Your task to perform on an android device: turn smart compose on in the gmail app Image 0: 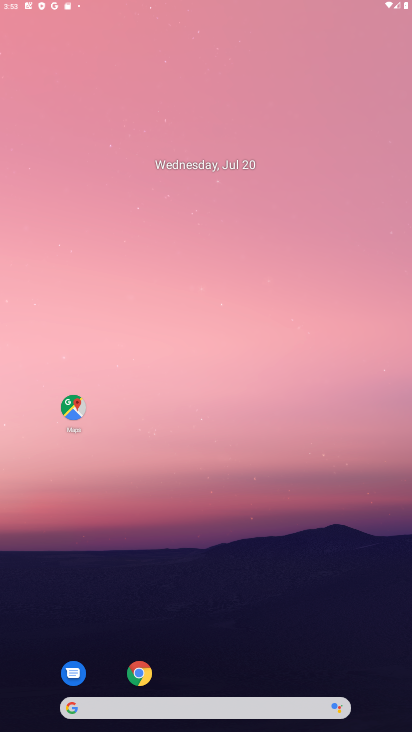
Step 0: press home button
Your task to perform on an android device: turn smart compose on in the gmail app Image 1: 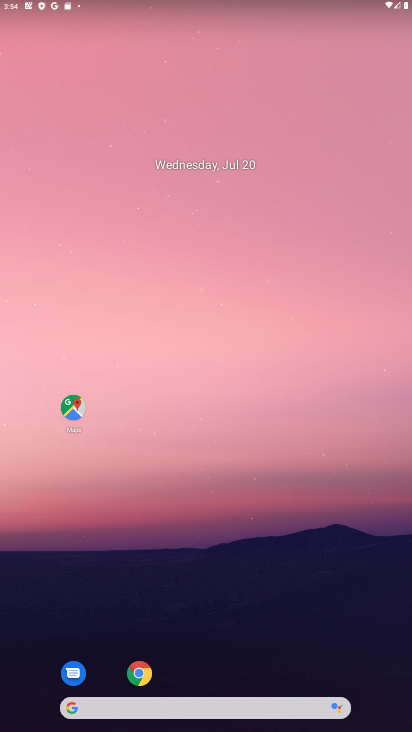
Step 1: drag from (269, 658) to (268, 12)
Your task to perform on an android device: turn smart compose on in the gmail app Image 2: 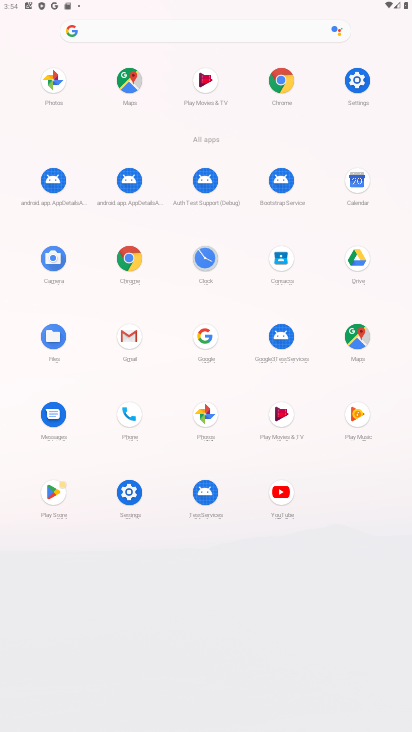
Step 2: click (125, 333)
Your task to perform on an android device: turn smart compose on in the gmail app Image 3: 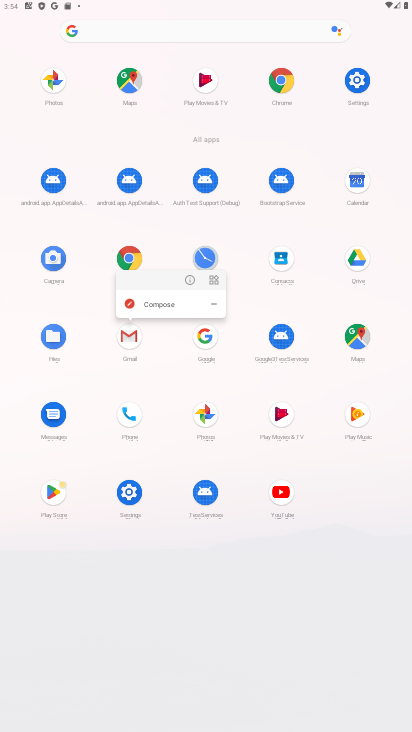
Step 3: click (125, 332)
Your task to perform on an android device: turn smart compose on in the gmail app Image 4: 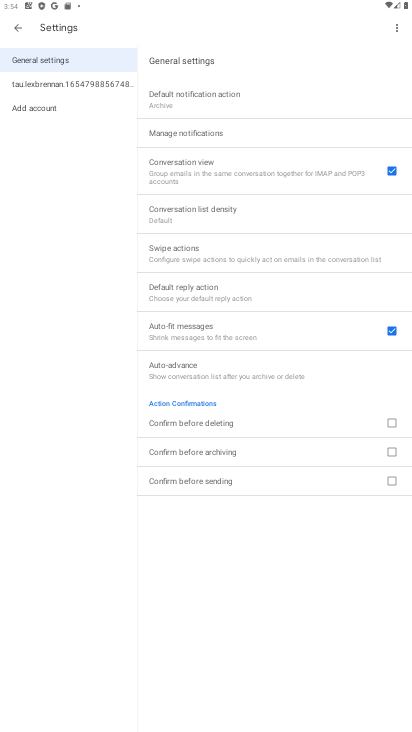
Step 4: click (67, 82)
Your task to perform on an android device: turn smart compose on in the gmail app Image 5: 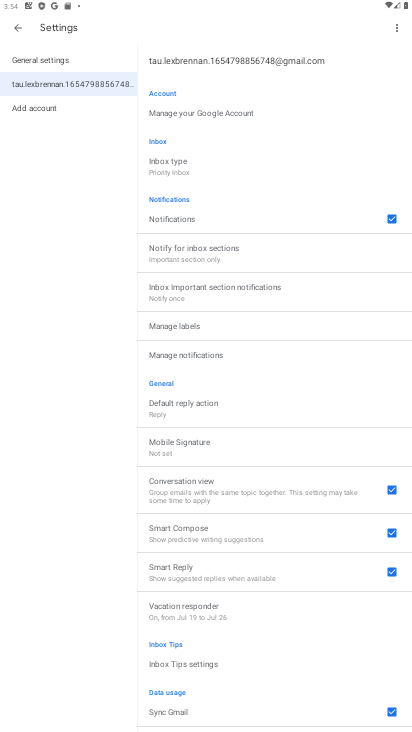
Step 5: task complete